Your task to perform on an android device: change notification settings in the gmail app Image 0: 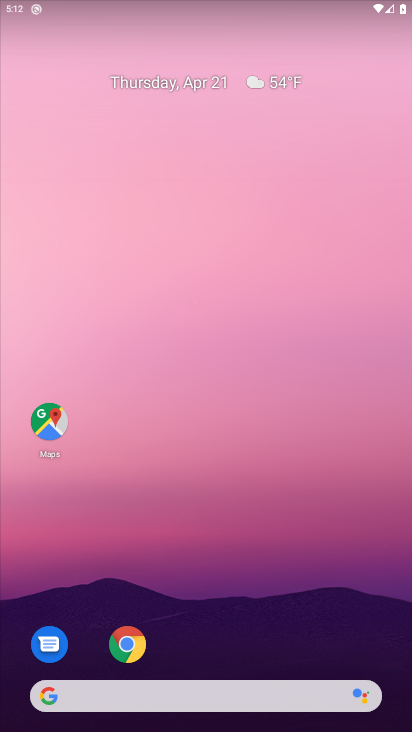
Step 0: drag from (201, 676) to (250, 166)
Your task to perform on an android device: change notification settings in the gmail app Image 1: 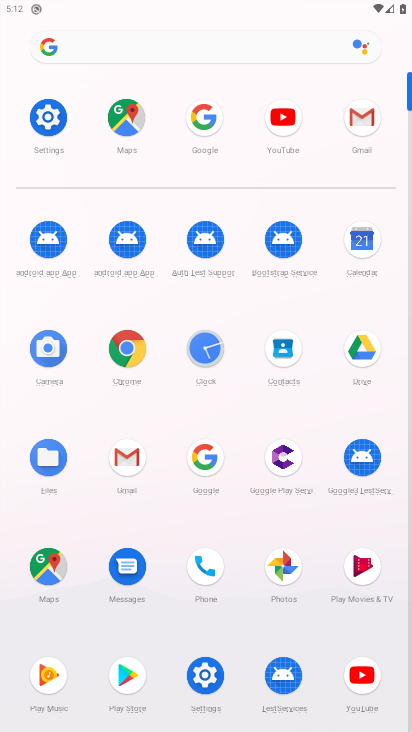
Step 1: click (367, 124)
Your task to perform on an android device: change notification settings in the gmail app Image 2: 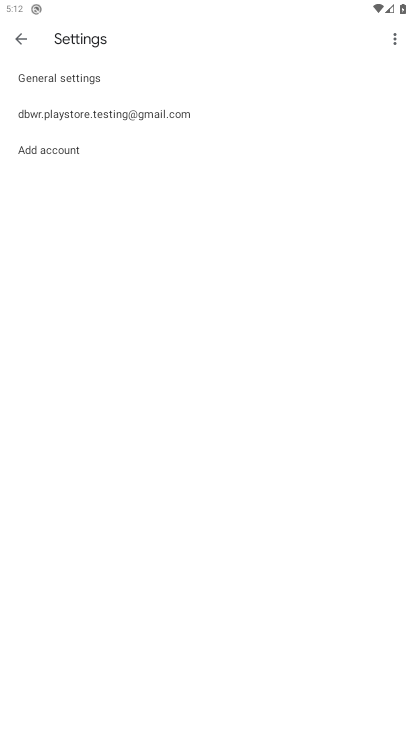
Step 2: click (64, 79)
Your task to perform on an android device: change notification settings in the gmail app Image 3: 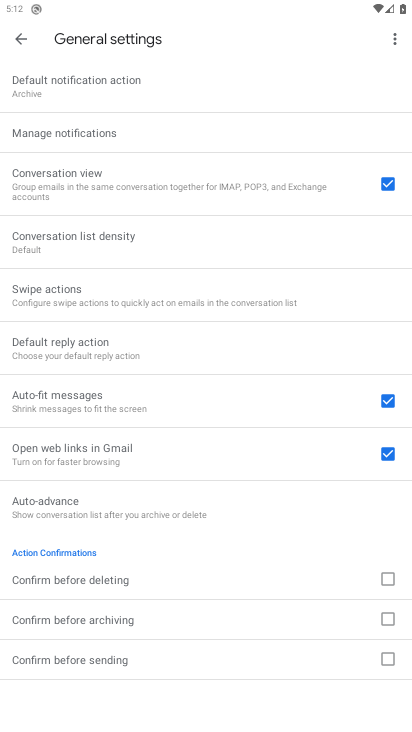
Step 3: click (80, 137)
Your task to perform on an android device: change notification settings in the gmail app Image 4: 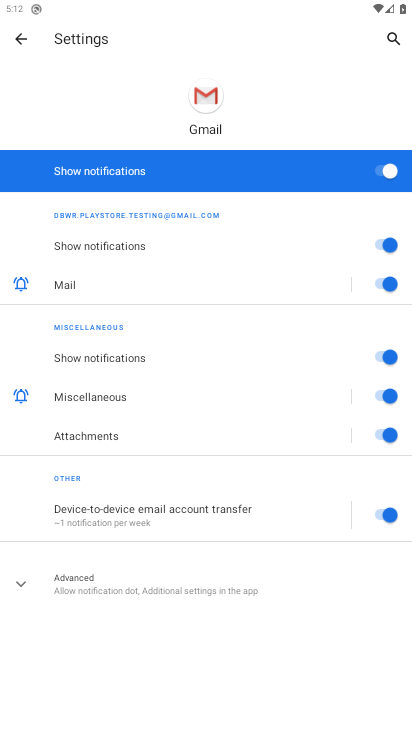
Step 4: click (379, 172)
Your task to perform on an android device: change notification settings in the gmail app Image 5: 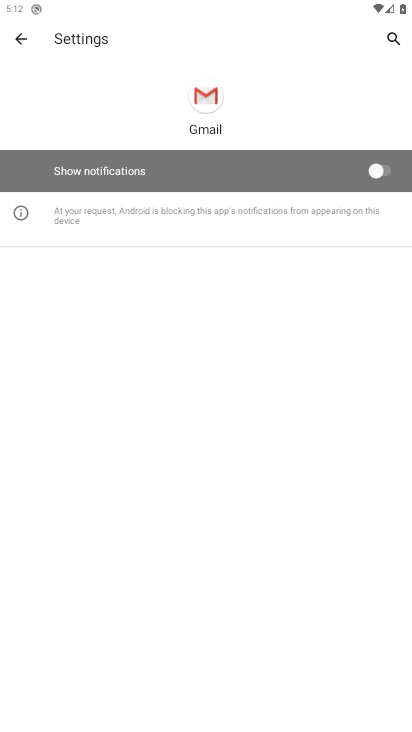
Step 5: task complete